Your task to perform on an android device: find snoozed emails in the gmail app Image 0: 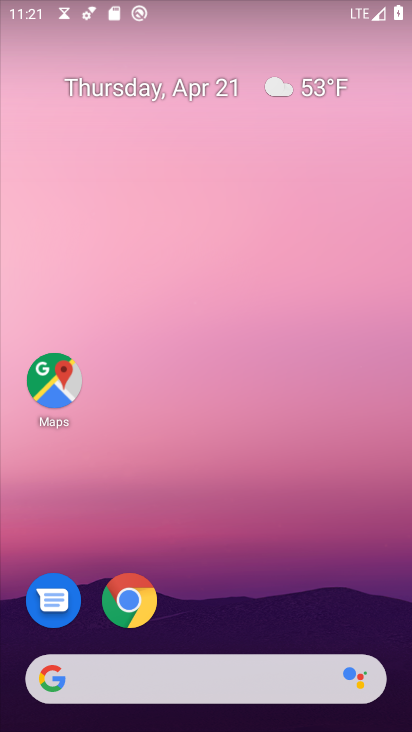
Step 0: drag from (302, 404) to (265, 94)
Your task to perform on an android device: find snoozed emails in the gmail app Image 1: 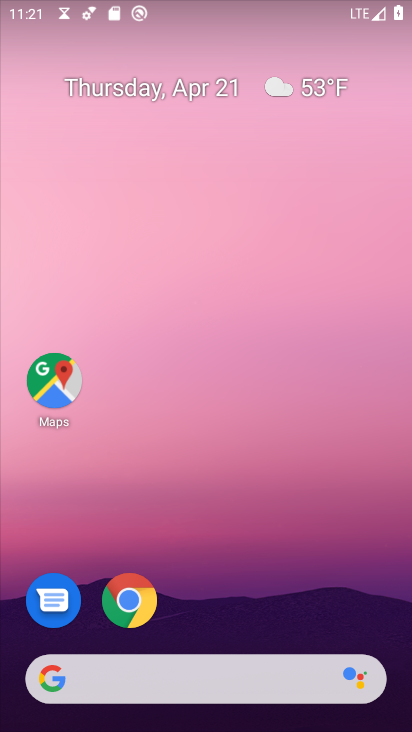
Step 1: drag from (234, 603) to (234, 74)
Your task to perform on an android device: find snoozed emails in the gmail app Image 2: 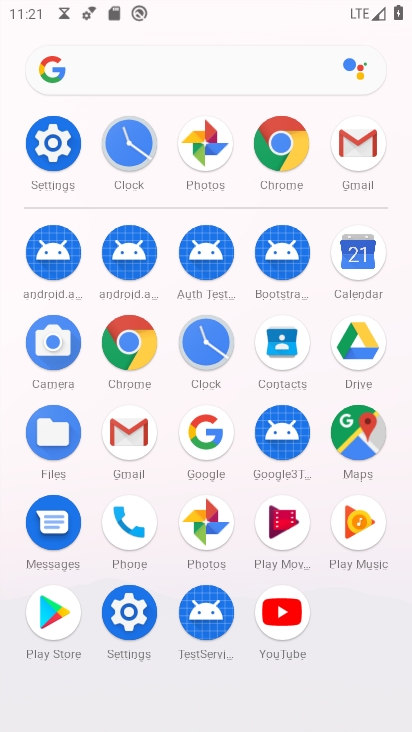
Step 2: click (124, 436)
Your task to perform on an android device: find snoozed emails in the gmail app Image 3: 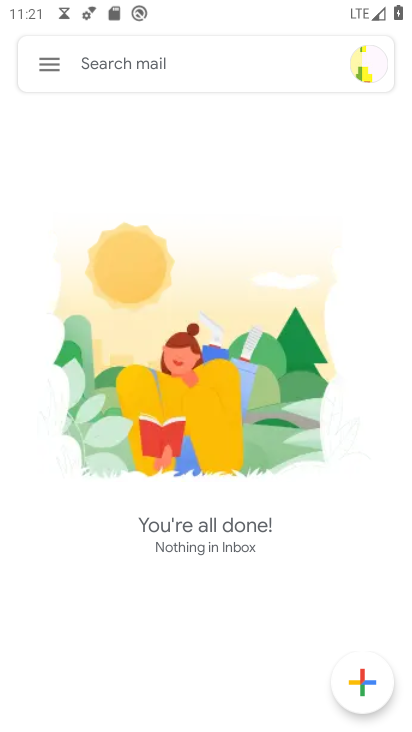
Step 3: click (43, 60)
Your task to perform on an android device: find snoozed emails in the gmail app Image 4: 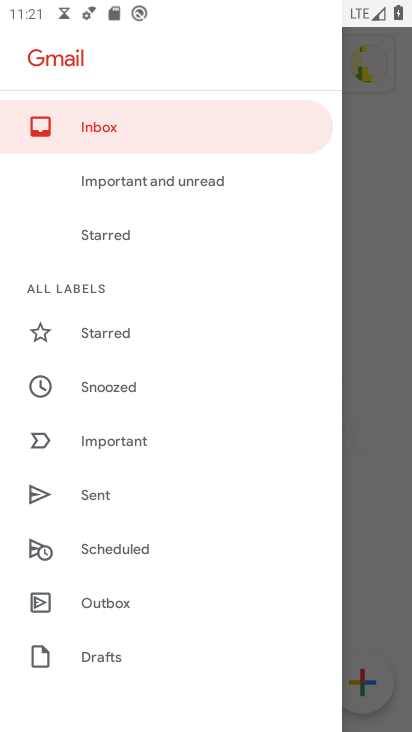
Step 4: click (120, 385)
Your task to perform on an android device: find snoozed emails in the gmail app Image 5: 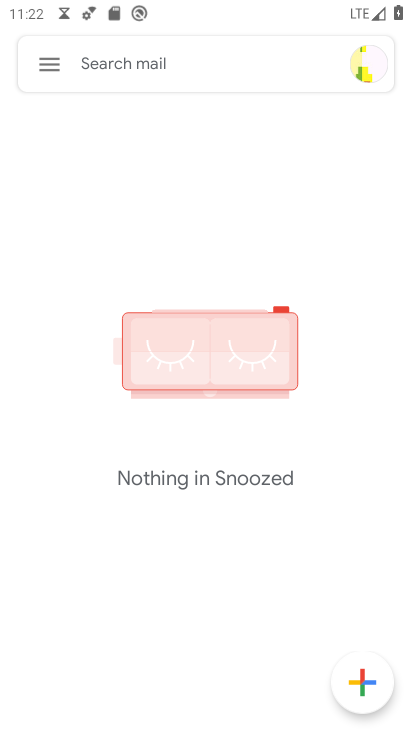
Step 5: task complete